Your task to perform on an android device: move an email to a new category in the gmail app Image 0: 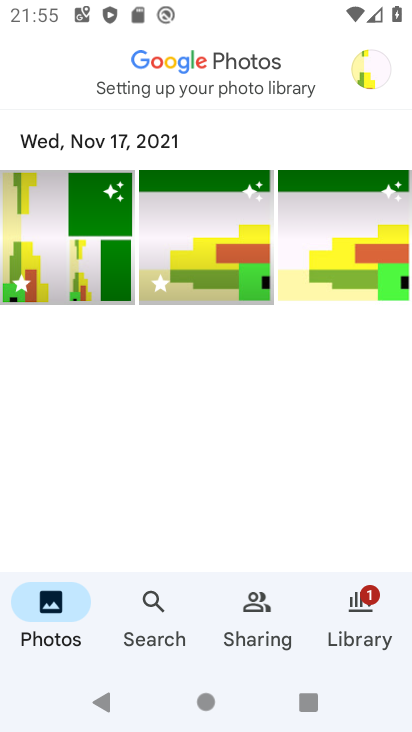
Step 0: press home button
Your task to perform on an android device: move an email to a new category in the gmail app Image 1: 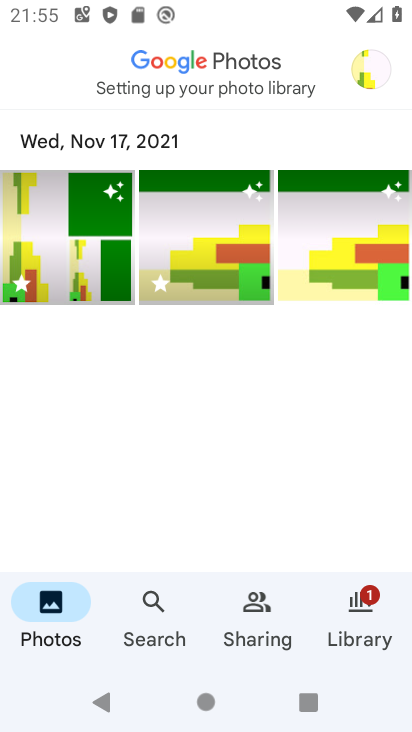
Step 1: press home button
Your task to perform on an android device: move an email to a new category in the gmail app Image 2: 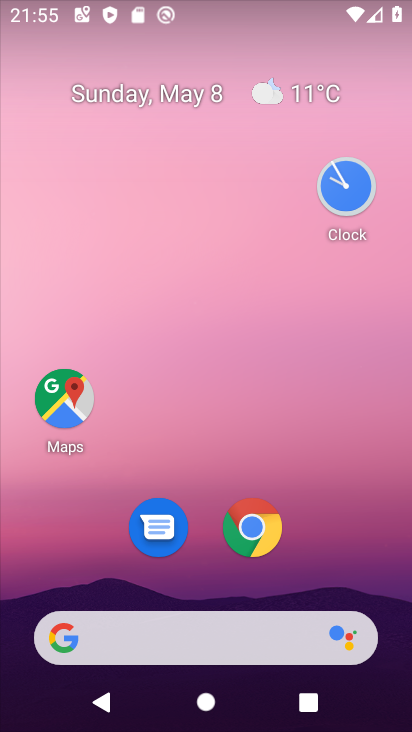
Step 2: drag from (356, 493) to (410, 163)
Your task to perform on an android device: move an email to a new category in the gmail app Image 3: 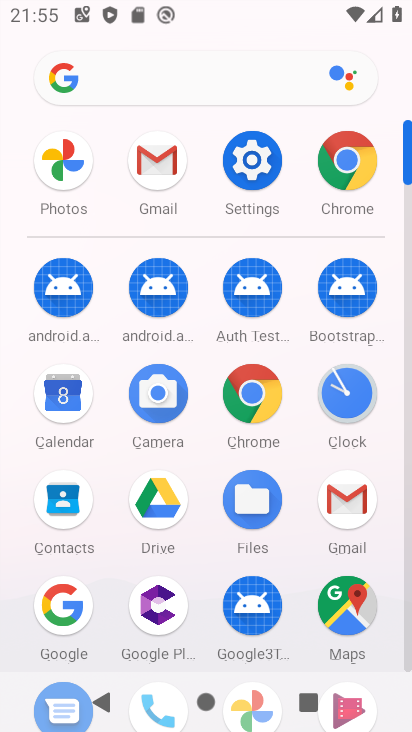
Step 3: click (144, 162)
Your task to perform on an android device: move an email to a new category in the gmail app Image 4: 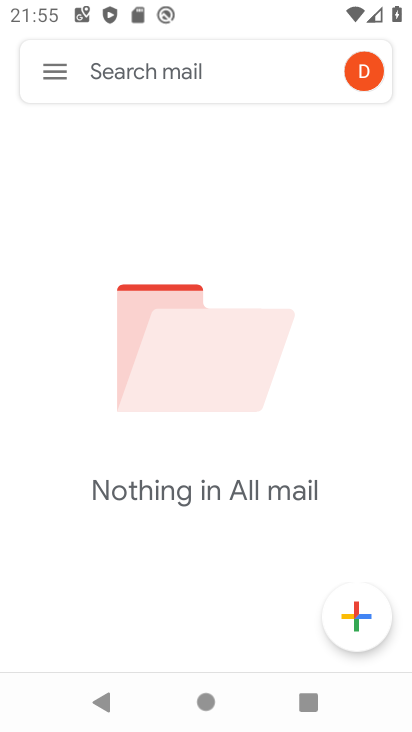
Step 4: task complete